Your task to perform on an android device: all mails in gmail Image 0: 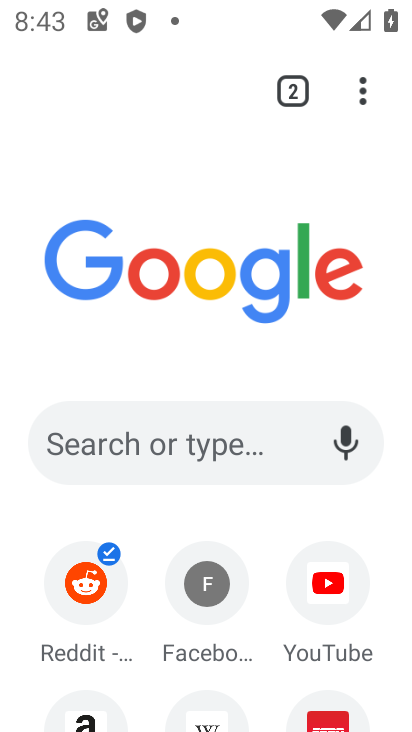
Step 0: press home button
Your task to perform on an android device: all mails in gmail Image 1: 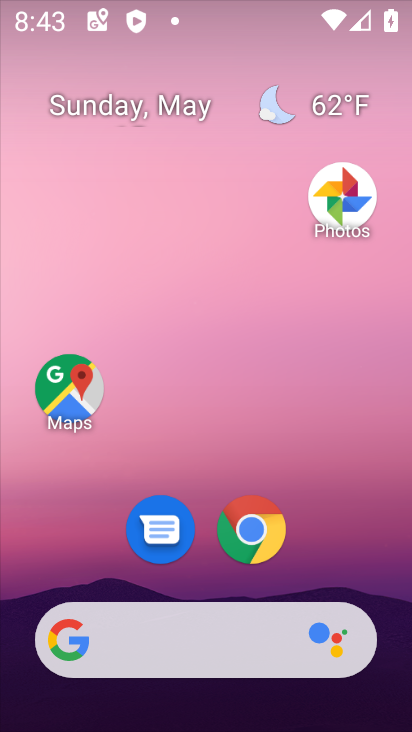
Step 1: drag from (385, 571) to (339, 172)
Your task to perform on an android device: all mails in gmail Image 2: 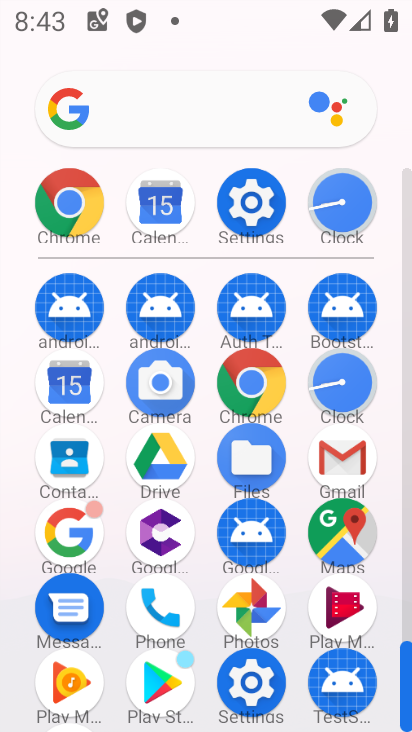
Step 2: click (370, 455)
Your task to perform on an android device: all mails in gmail Image 3: 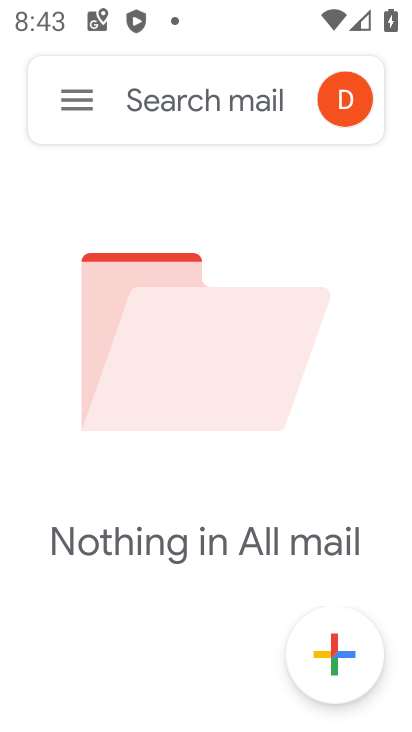
Step 3: task complete